Your task to perform on an android device: change your default location settings in chrome Image 0: 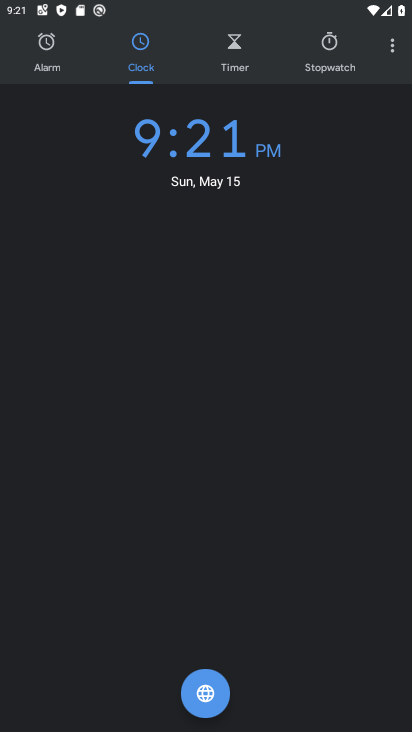
Step 0: press home button
Your task to perform on an android device: change your default location settings in chrome Image 1: 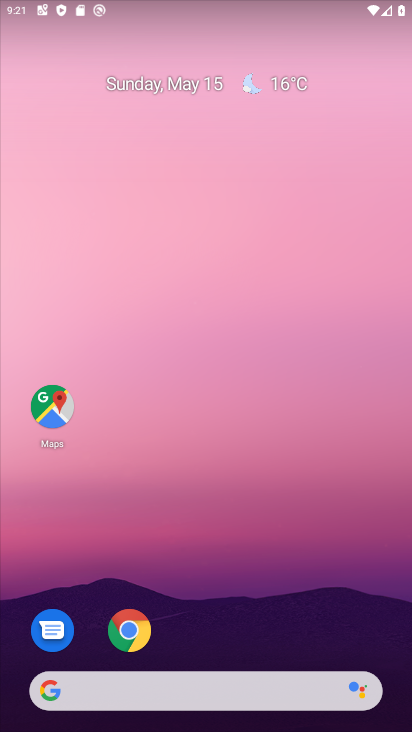
Step 1: click (127, 623)
Your task to perform on an android device: change your default location settings in chrome Image 2: 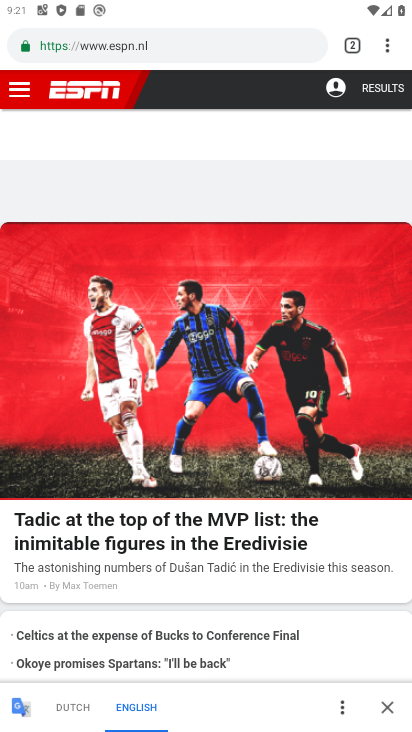
Step 2: drag from (381, 48) to (222, 508)
Your task to perform on an android device: change your default location settings in chrome Image 3: 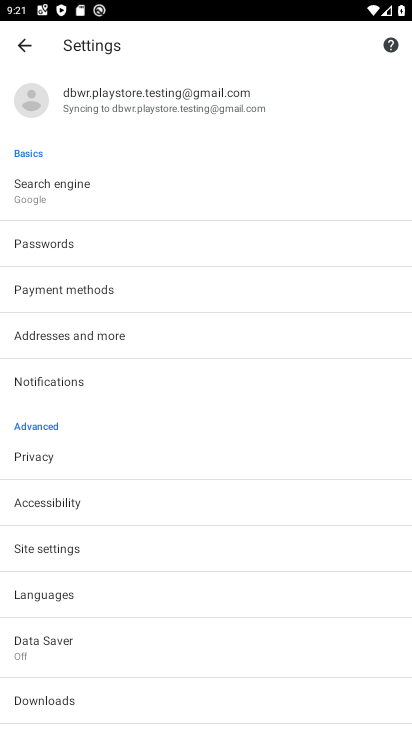
Step 3: drag from (113, 686) to (169, 384)
Your task to perform on an android device: change your default location settings in chrome Image 4: 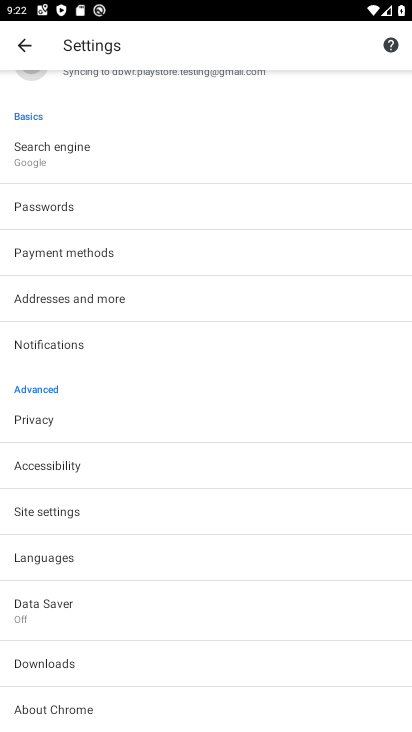
Step 4: drag from (182, 257) to (188, 495)
Your task to perform on an android device: change your default location settings in chrome Image 5: 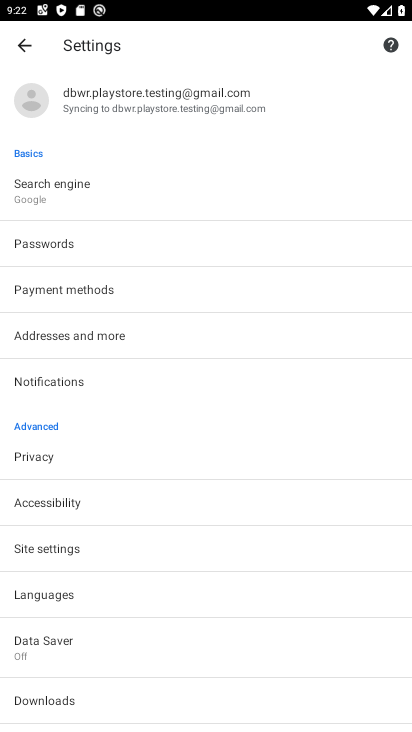
Step 5: click (103, 548)
Your task to perform on an android device: change your default location settings in chrome Image 6: 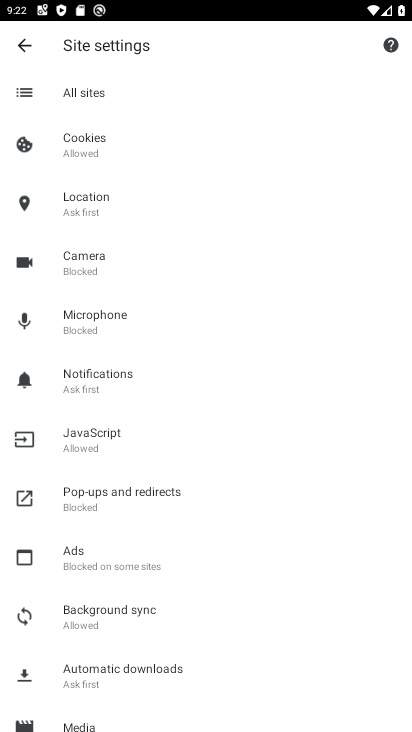
Step 6: click (121, 210)
Your task to perform on an android device: change your default location settings in chrome Image 7: 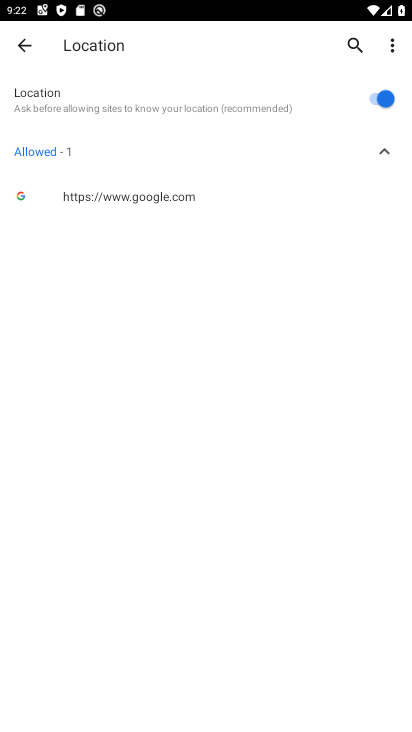
Step 7: click (371, 94)
Your task to perform on an android device: change your default location settings in chrome Image 8: 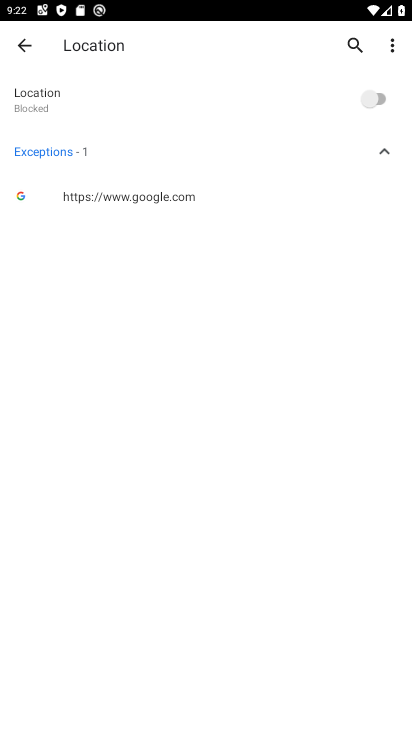
Step 8: task complete